Your task to perform on an android device: Go to privacy settings Image 0: 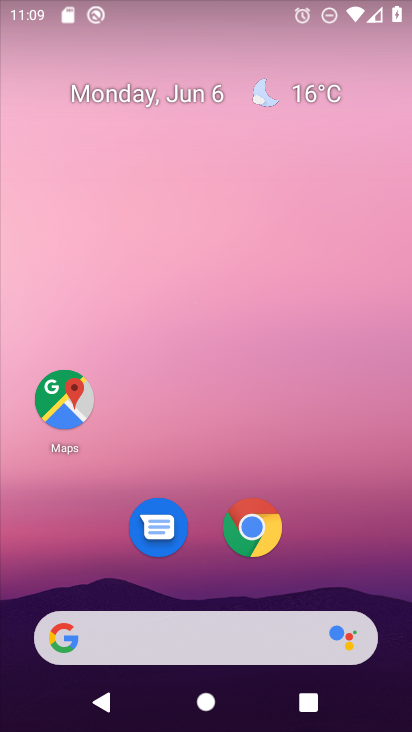
Step 0: drag from (355, 562) to (346, 153)
Your task to perform on an android device: Go to privacy settings Image 1: 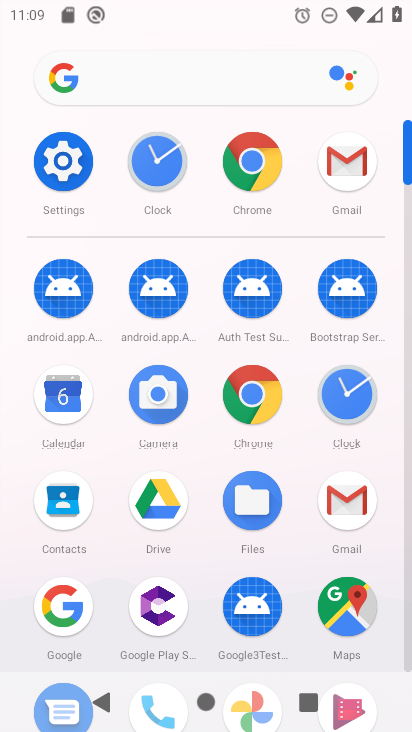
Step 1: click (65, 171)
Your task to perform on an android device: Go to privacy settings Image 2: 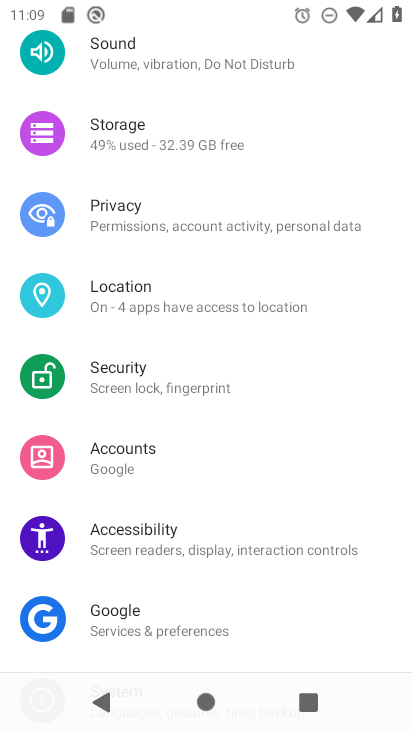
Step 2: drag from (365, 295) to (358, 407)
Your task to perform on an android device: Go to privacy settings Image 3: 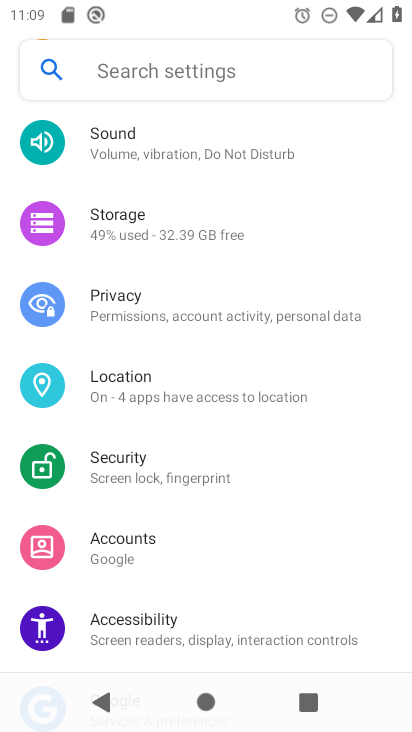
Step 3: drag from (351, 226) to (360, 377)
Your task to perform on an android device: Go to privacy settings Image 4: 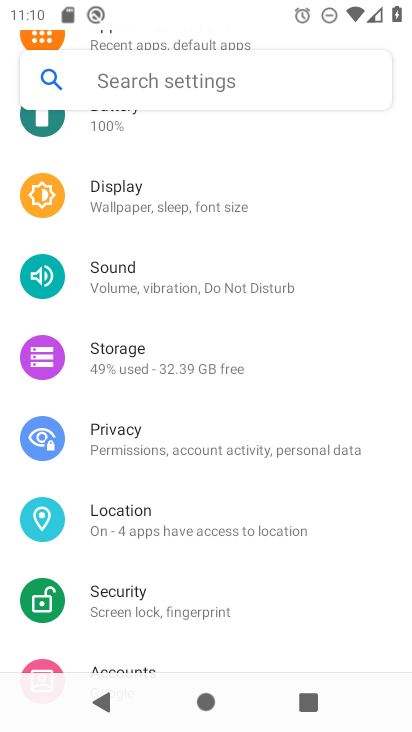
Step 4: drag from (331, 220) to (321, 384)
Your task to perform on an android device: Go to privacy settings Image 5: 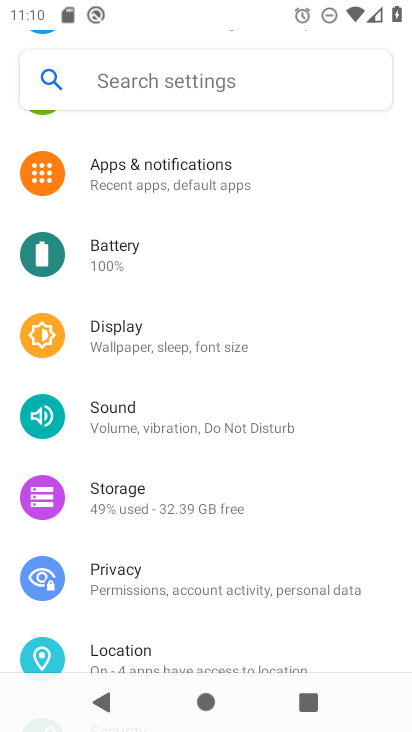
Step 5: drag from (332, 271) to (328, 443)
Your task to perform on an android device: Go to privacy settings Image 6: 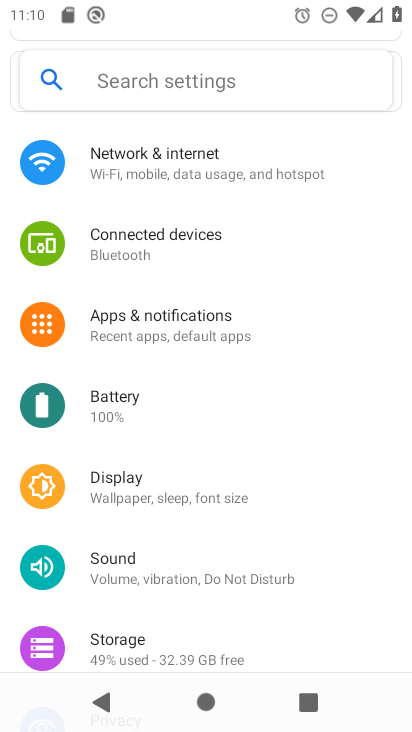
Step 6: drag from (314, 309) to (337, 443)
Your task to perform on an android device: Go to privacy settings Image 7: 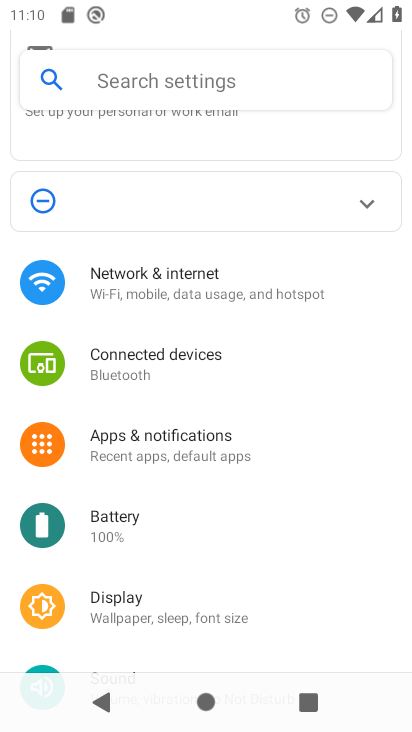
Step 7: drag from (326, 497) to (351, 378)
Your task to perform on an android device: Go to privacy settings Image 8: 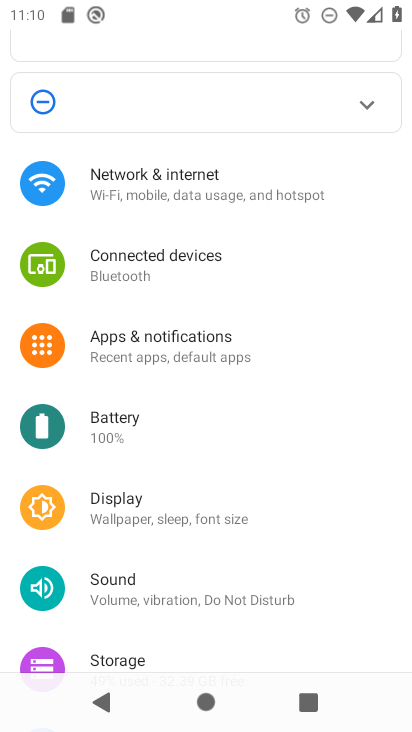
Step 8: drag from (343, 535) to (362, 363)
Your task to perform on an android device: Go to privacy settings Image 9: 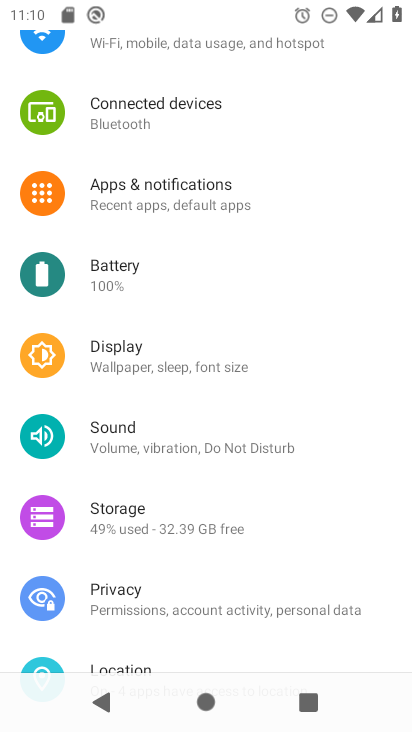
Step 9: drag from (329, 550) to (334, 388)
Your task to perform on an android device: Go to privacy settings Image 10: 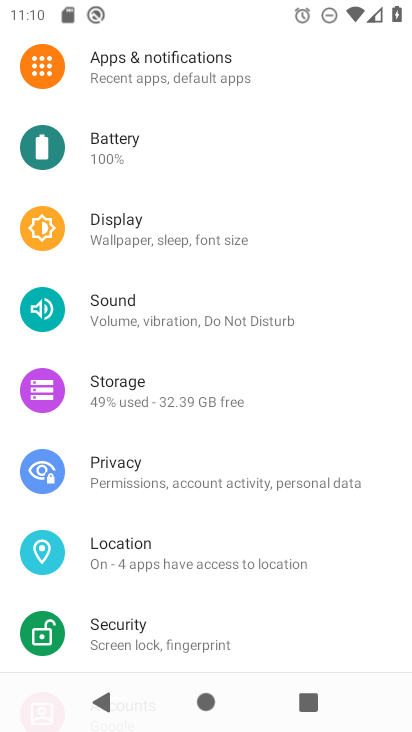
Step 10: click (233, 481)
Your task to perform on an android device: Go to privacy settings Image 11: 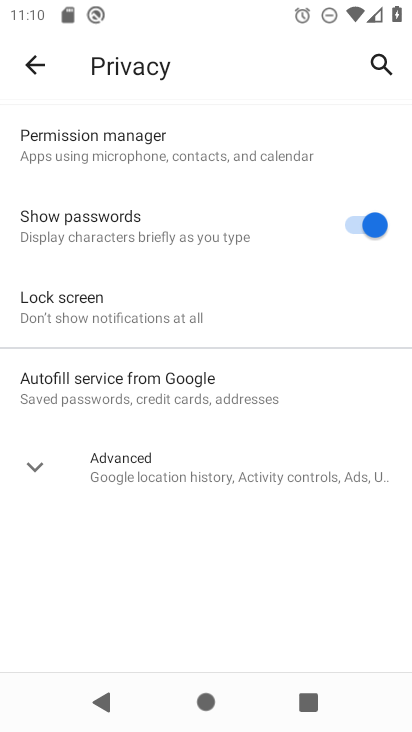
Step 11: click (233, 480)
Your task to perform on an android device: Go to privacy settings Image 12: 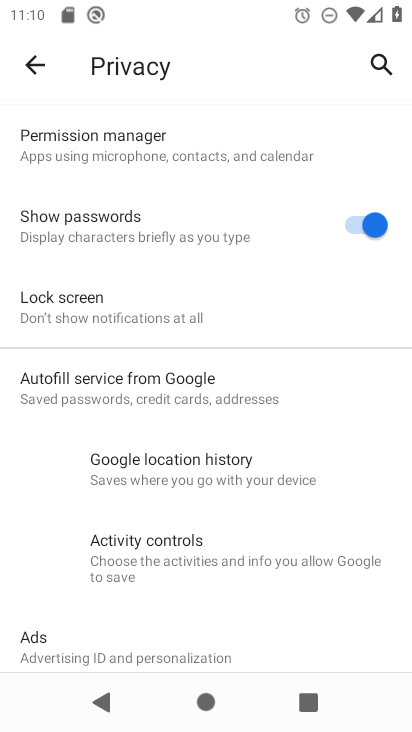
Step 12: task complete